Your task to perform on an android device: turn smart compose on in the gmail app Image 0: 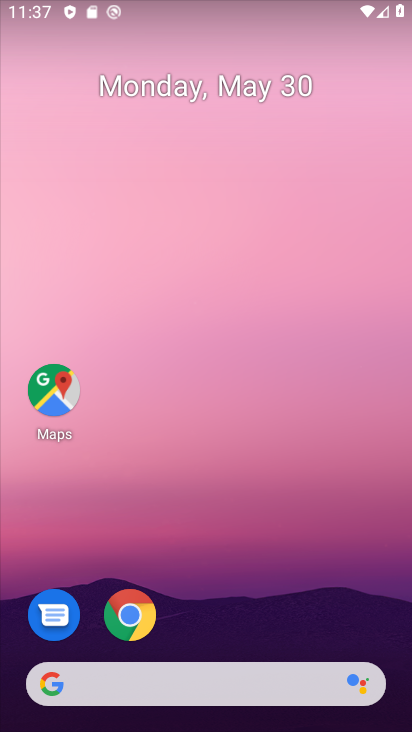
Step 0: drag from (330, 600) to (331, 88)
Your task to perform on an android device: turn smart compose on in the gmail app Image 1: 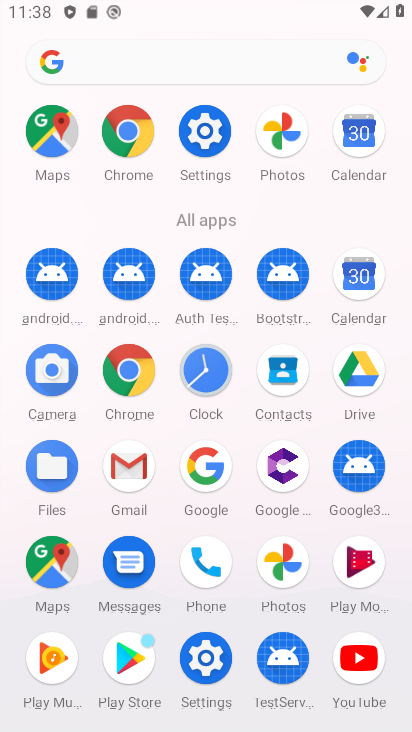
Step 1: click (134, 461)
Your task to perform on an android device: turn smart compose on in the gmail app Image 2: 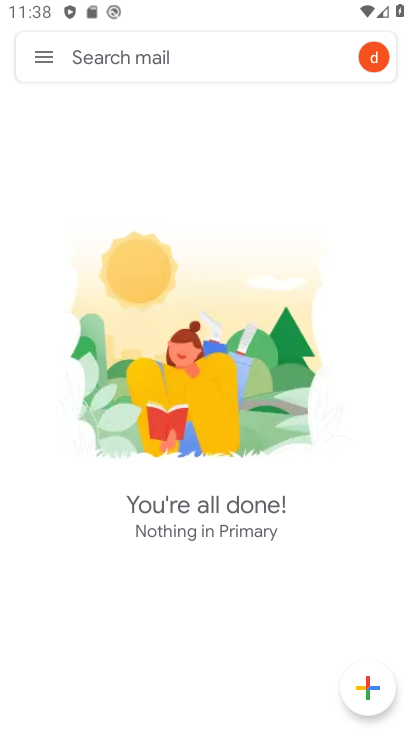
Step 2: click (43, 54)
Your task to perform on an android device: turn smart compose on in the gmail app Image 3: 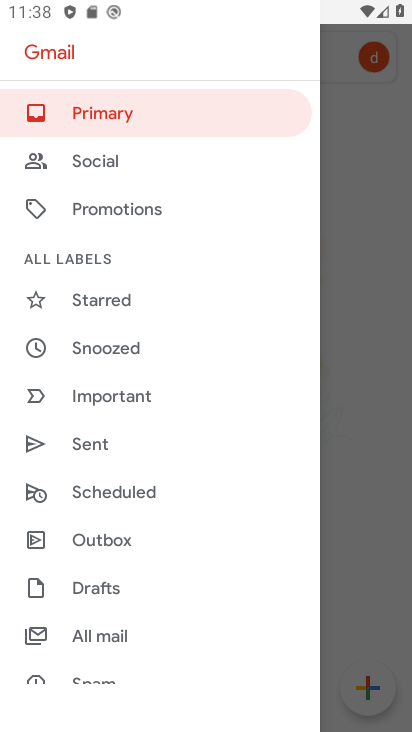
Step 3: drag from (238, 509) to (240, 403)
Your task to perform on an android device: turn smart compose on in the gmail app Image 4: 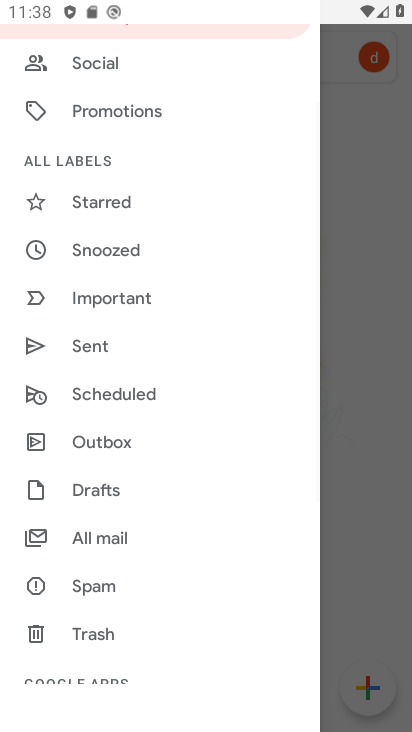
Step 4: drag from (241, 543) to (252, 395)
Your task to perform on an android device: turn smart compose on in the gmail app Image 5: 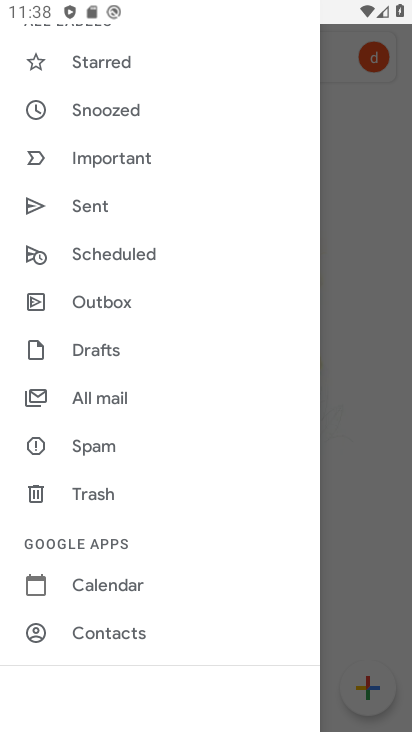
Step 5: drag from (250, 560) to (250, 393)
Your task to perform on an android device: turn smart compose on in the gmail app Image 6: 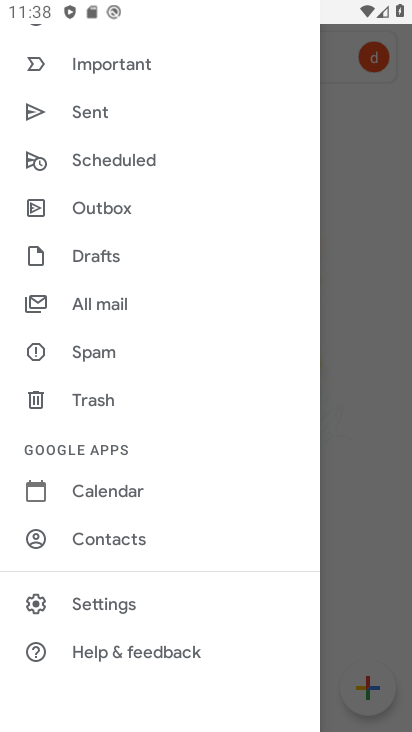
Step 6: click (126, 598)
Your task to perform on an android device: turn smart compose on in the gmail app Image 7: 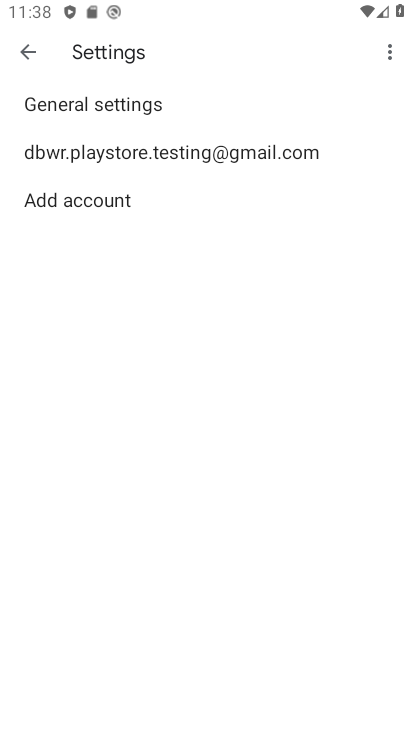
Step 7: click (129, 153)
Your task to perform on an android device: turn smart compose on in the gmail app Image 8: 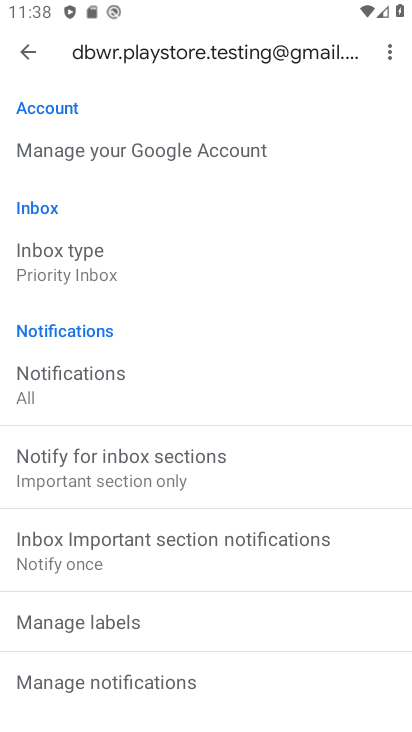
Step 8: task complete